Your task to perform on an android device: open a bookmark in the chrome app Image 0: 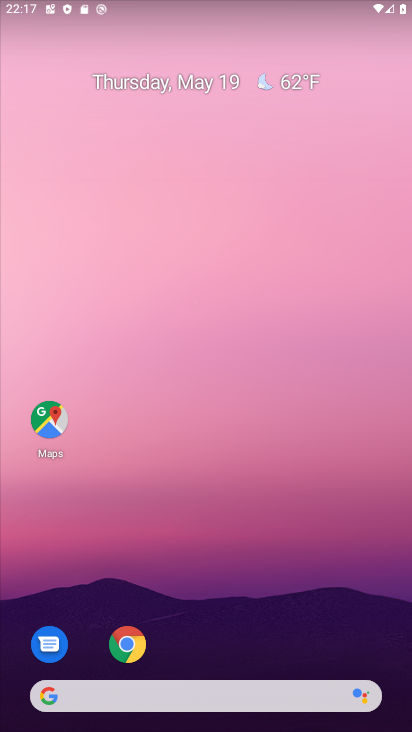
Step 0: click (184, 179)
Your task to perform on an android device: open a bookmark in the chrome app Image 1: 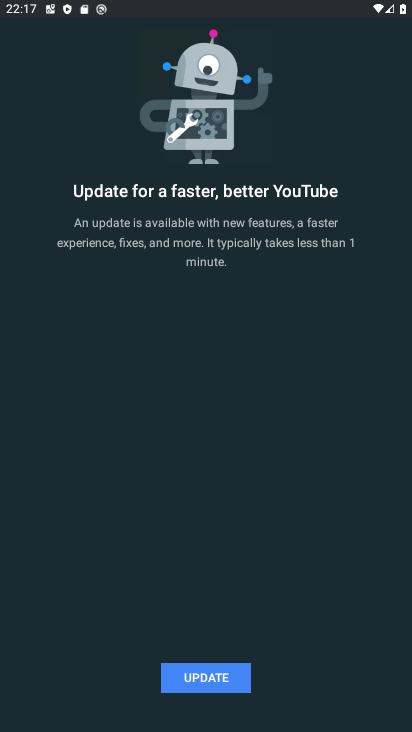
Step 1: press back button
Your task to perform on an android device: open a bookmark in the chrome app Image 2: 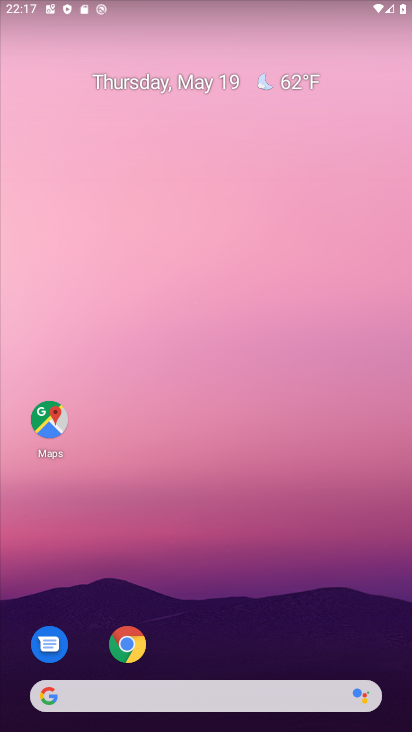
Step 2: drag from (237, 666) to (138, 139)
Your task to perform on an android device: open a bookmark in the chrome app Image 3: 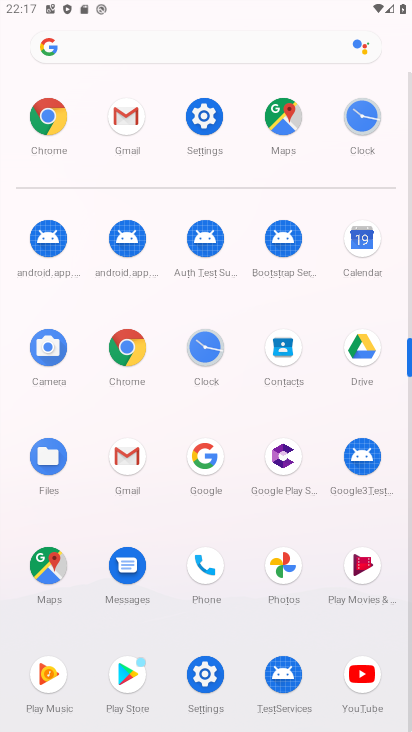
Step 3: click (43, 122)
Your task to perform on an android device: open a bookmark in the chrome app Image 4: 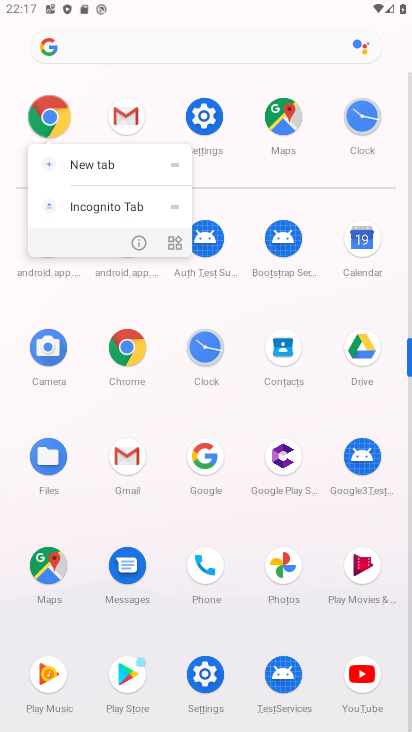
Step 4: click (43, 122)
Your task to perform on an android device: open a bookmark in the chrome app Image 5: 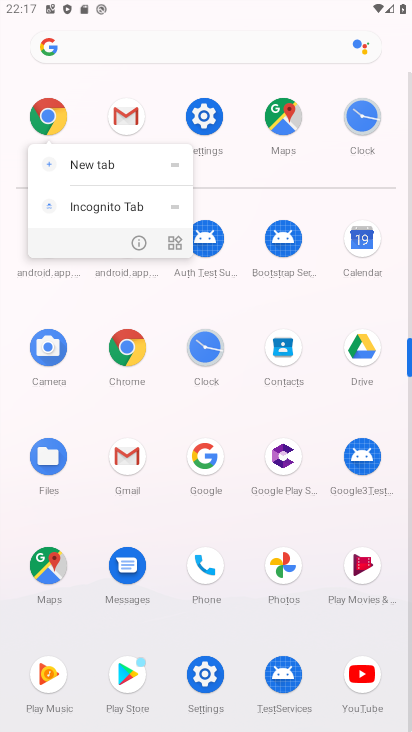
Step 5: click (43, 122)
Your task to perform on an android device: open a bookmark in the chrome app Image 6: 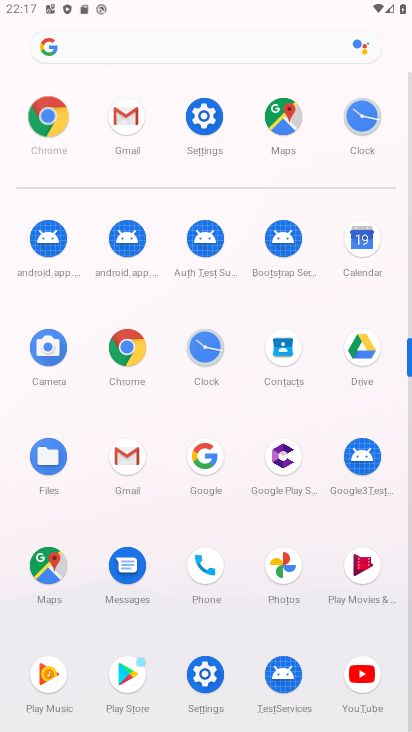
Step 6: click (43, 122)
Your task to perform on an android device: open a bookmark in the chrome app Image 7: 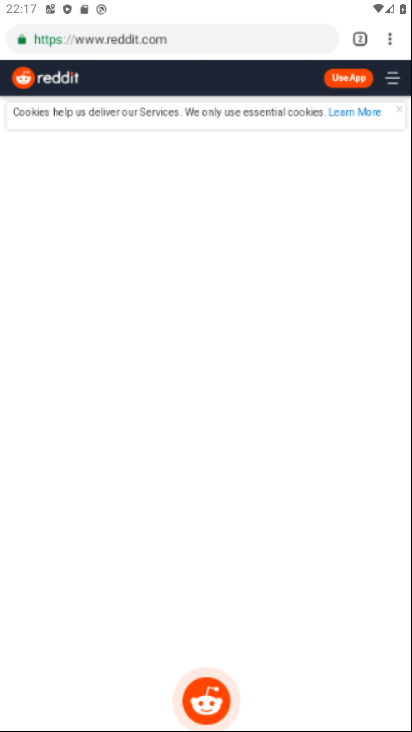
Step 7: click (43, 122)
Your task to perform on an android device: open a bookmark in the chrome app Image 8: 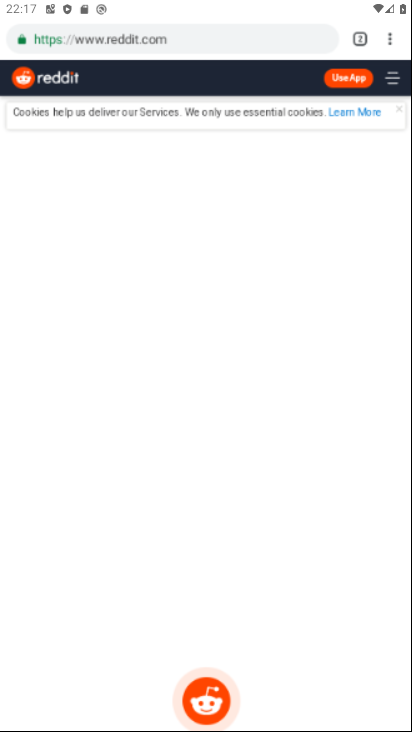
Step 8: click (43, 122)
Your task to perform on an android device: open a bookmark in the chrome app Image 9: 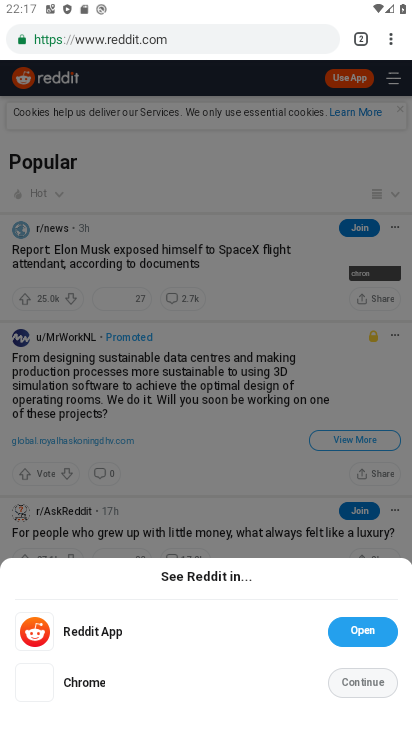
Step 9: drag from (384, 33) to (290, 182)
Your task to perform on an android device: open a bookmark in the chrome app Image 10: 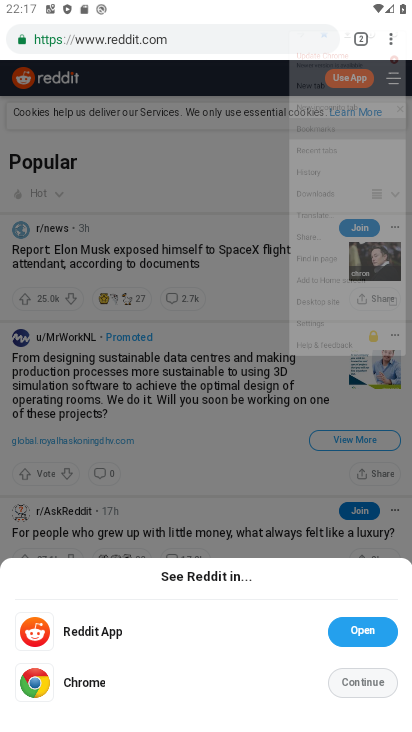
Step 10: click (291, 183)
Your task to perform on an android device: open a bookmark in the chrome app Image 11: 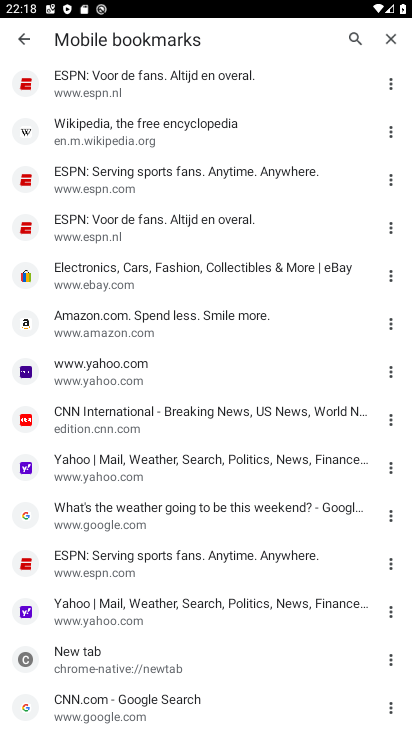
Step 11: task complete